Your task to perform on an android device: open wifi settings Image 0: 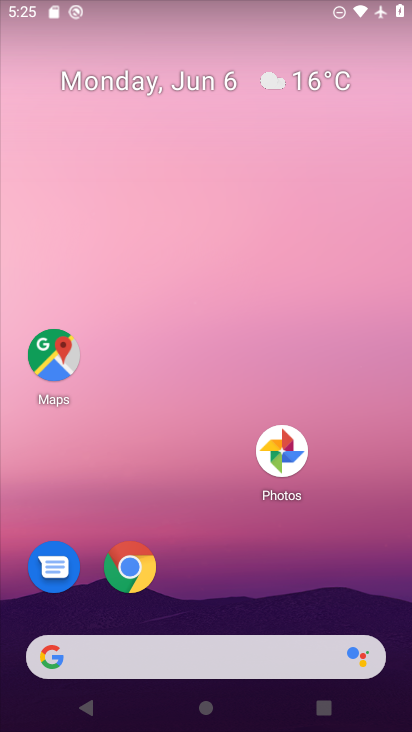
Step 0: drag from (237, 519) to (204, 281)
Your task to perform on an android device: open wifi settings Image 1: 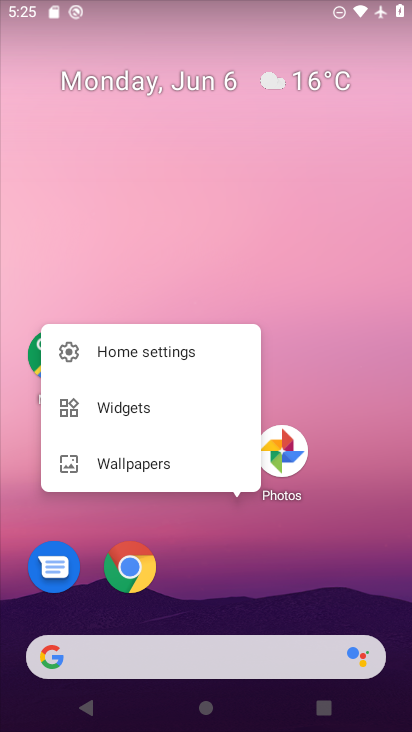
Step 1: drag from (196, 325) to (170, 147)
Your task to perform on an android device: open wifi settings Image 2: 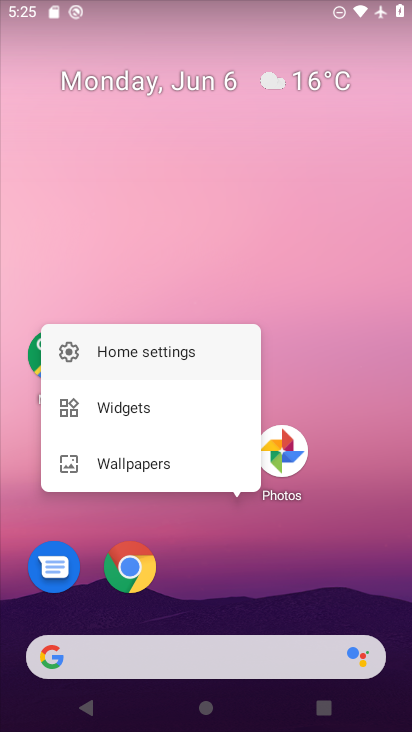
Step 2: drag from (220, 606) to (171, 152)
Your task to perform on an android device: open wifi settings Image 3: 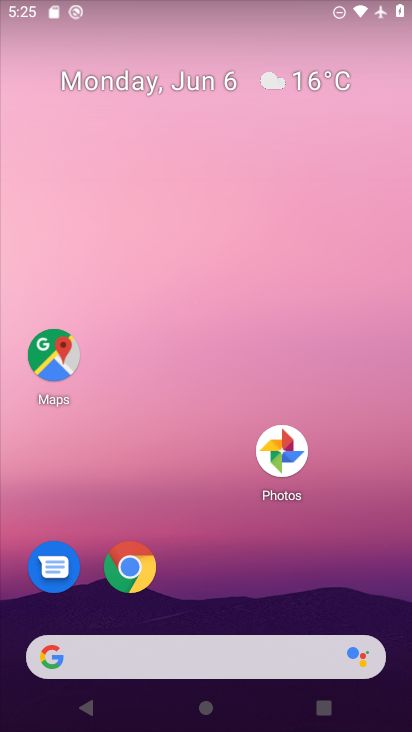
Step 3: drag from (207, 497) to (155, 103)
Your task to perform on an android device: open wifi settings Image 4: 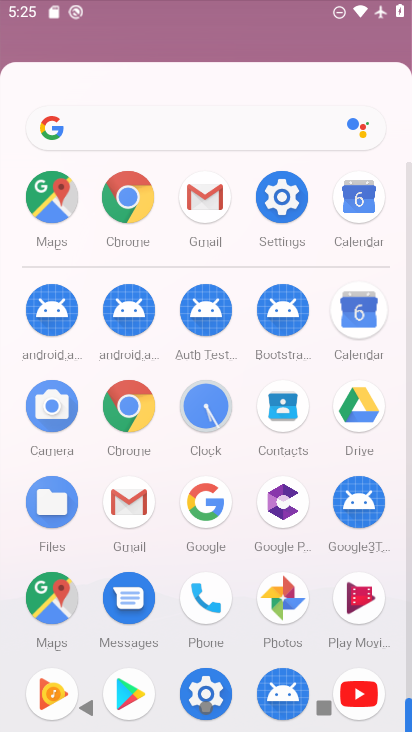
Step 4: drag from (215, 597) to (156, 170)
Your task to perform on an android device: open wifi settings Image 5: 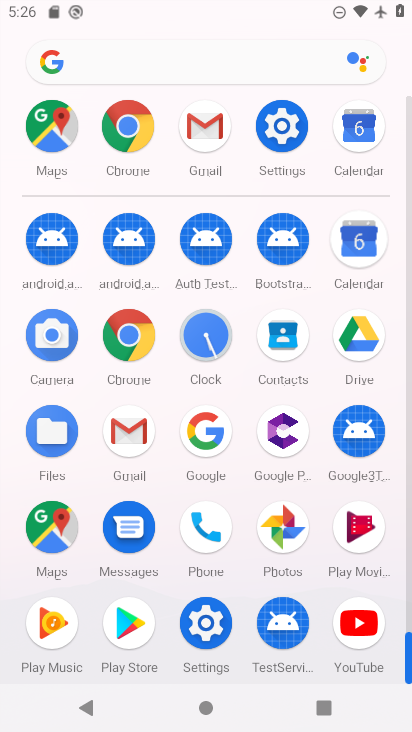
Step 5: click (282, 77)
Your task to perform on an android device: open wifi settings Image 6: 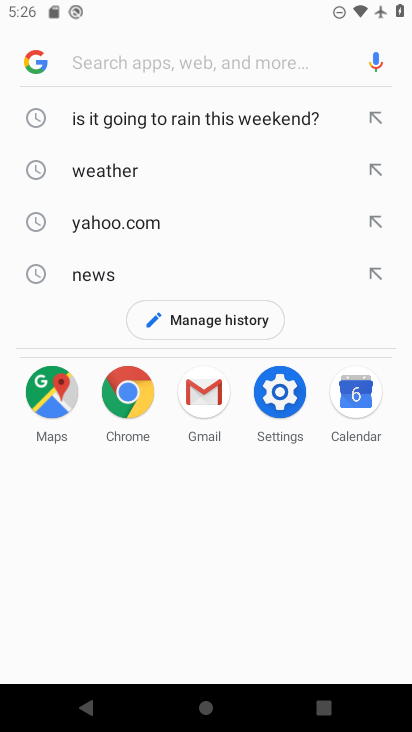
Step 6: press back button
Your task to perform on an android device: open wifi settings Image 7: 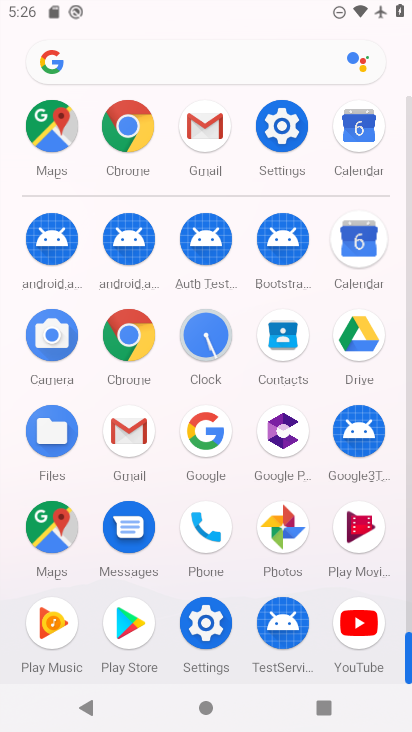
Step 7: click (273, 134)
Your task to perform on an android device: open wifi settings Image 8: 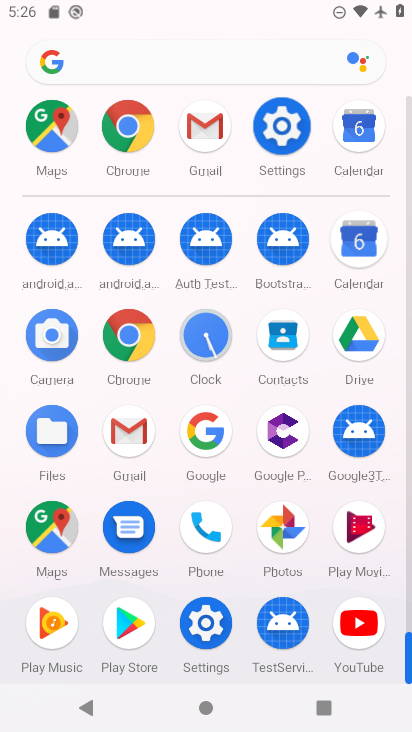
Step 8: click (273, 134)
Your task to perform on an android device: open wifi settings Image 9: 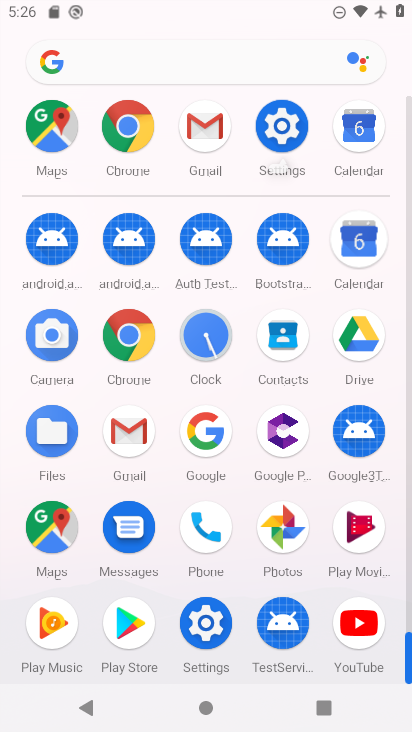
Step 9: click (273, 134)
Your task to perform on an android device: open wifi settings Image 10: 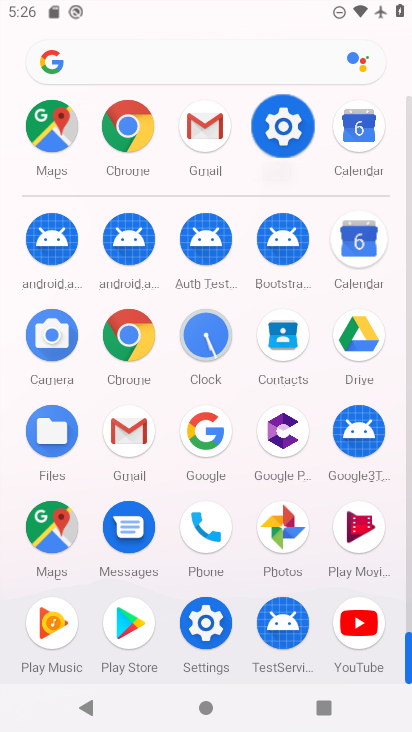
Step 10: click (273, 134)
Your task to perform on an android device: open wifi settings Image 11: 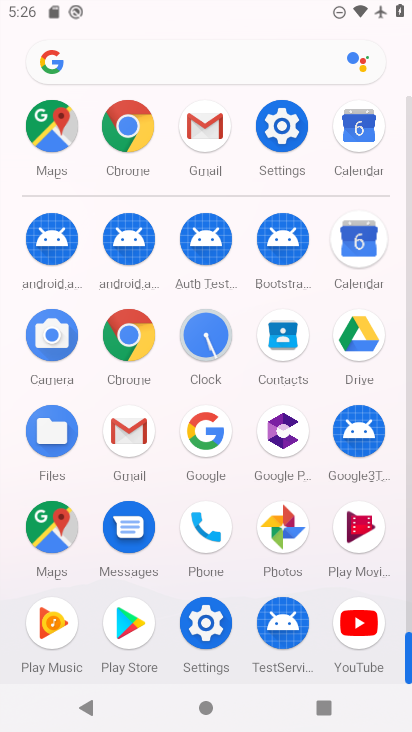
Step 11: click (273, 135)
Your task to perform on an android device: open wifi settings Image 12: 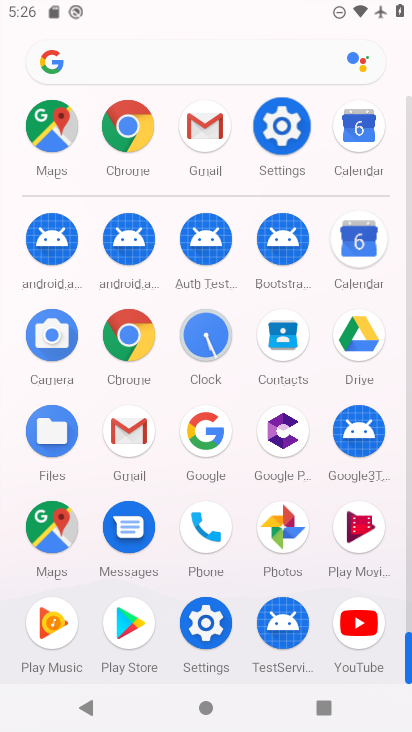
Step 12: click (275, 141)
Your task to perform on an android device: open wifi settings Image 13: 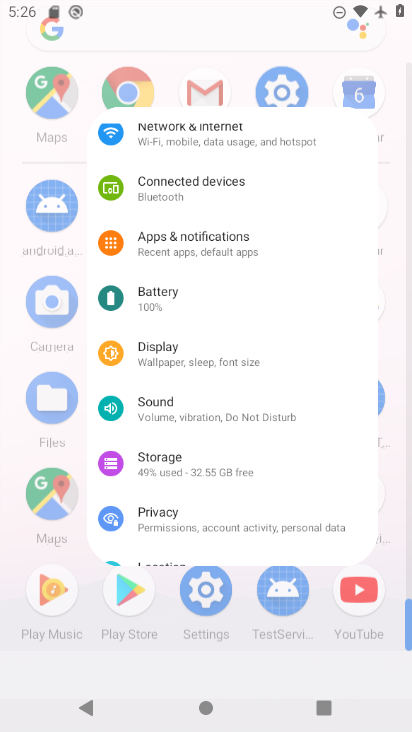
Step 13: click (278, 143)
Your task to perform on an android device: open wifi settings Image 14: 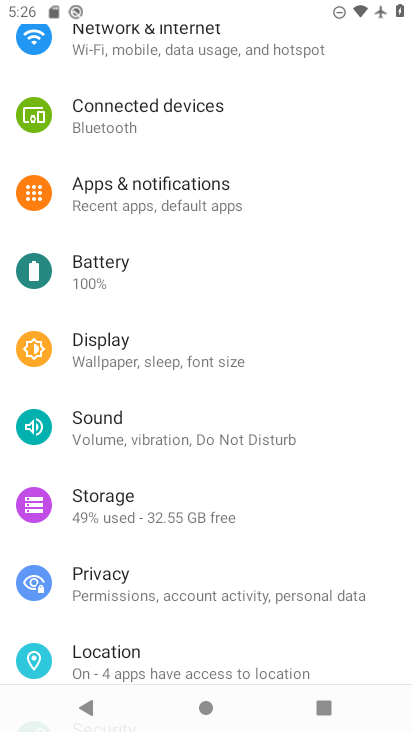
Step 14: click (281, 143)
Your task to perform on an android device: open wifi settings Image 15: 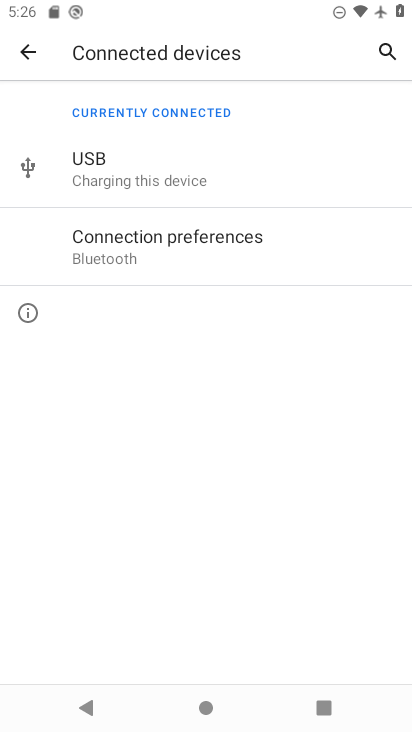
Step 15: click (21, 50)
Your task to perform on an android device: open wifi settings Image 16: 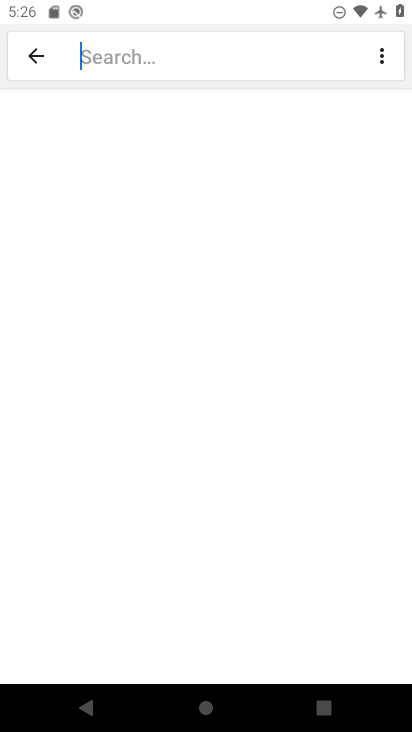
Step 16: click (39, 55)
Your task to perform on an android device: open wifi settings Image 17: 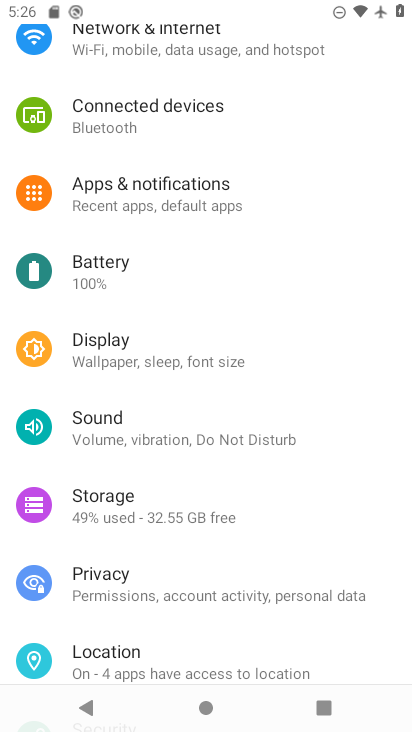
Step 17: click (236, 547)
Your task to perform on an android device: open wifi settings Image 18: 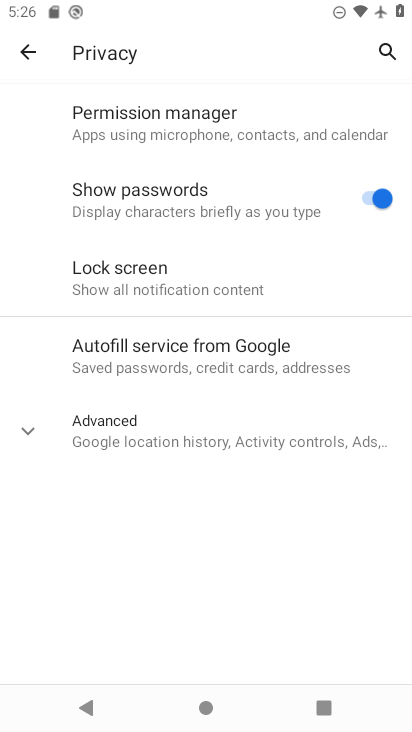
Step 18: click (154, 39)
Your task to perform on an android device: open wifi settings Image 19: 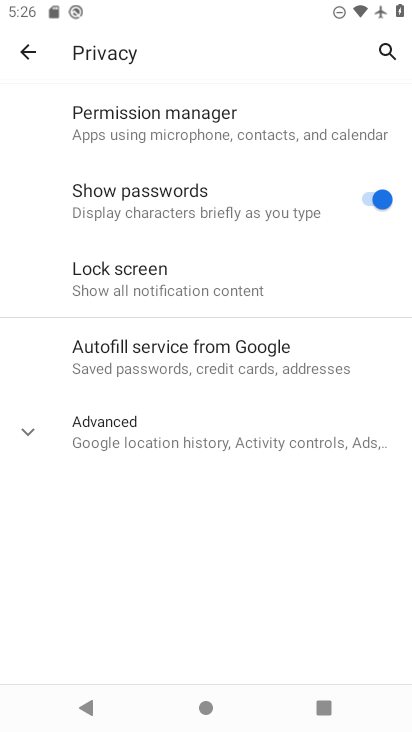
Step 19: click (155, 39)
Your task to perform on an android device: open wifi settings Image 20: 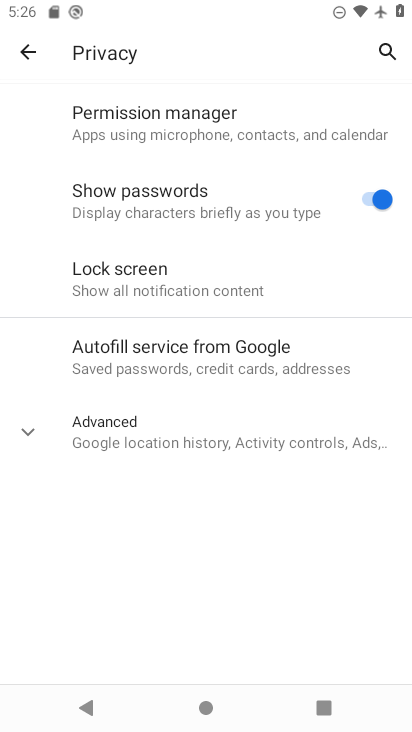
Step 20: click (33, 52)
Your task to perform on an android device: open wifi settings Image 21: 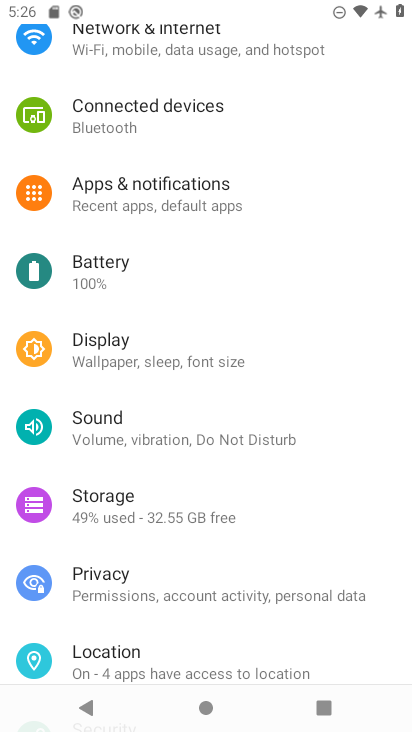
Step 21: click (146, 37)
Your task to perform on an android device: open wifi settings Image 22: 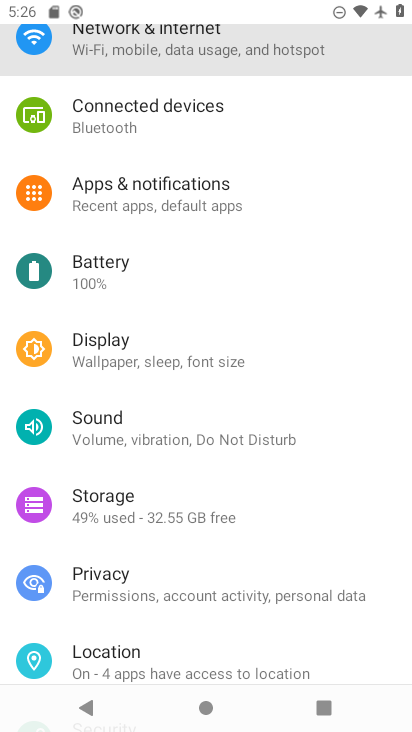
Step 22: click (145, 36)
Your task to perform on an android device: open wifi settings Image 23: 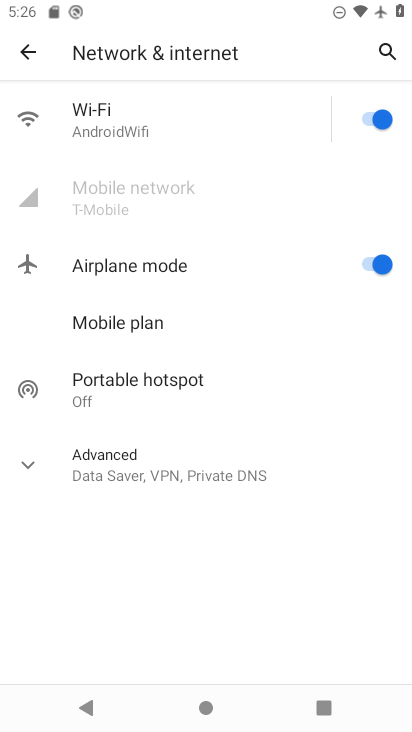
Step 23: task complete